Your task to perform on an android device: change notification settings in the gmail app Image 0: 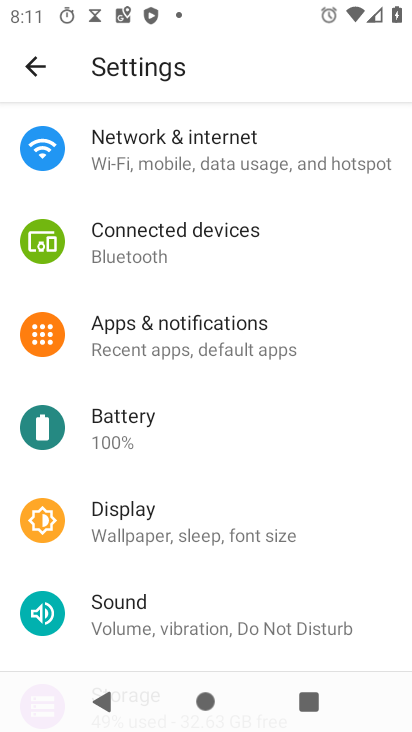
Step 0: press home button
Your task to perform on an android device: change notification settings in the gmail app Image 1: 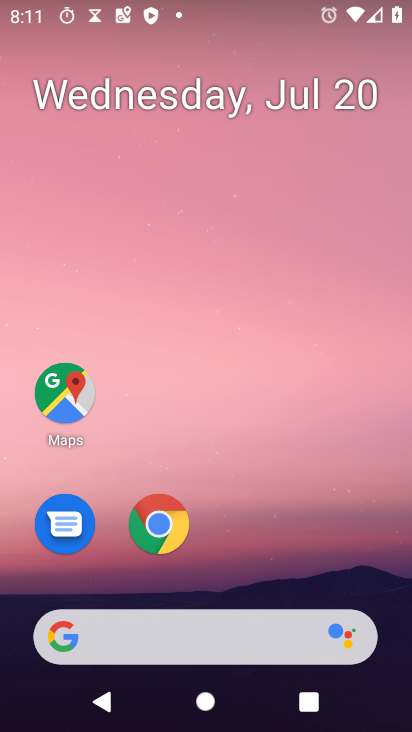
Step 1: drag from (213, 633) to (290, 132)
Your task to perform on an android device: change notification settings in the gmail app Image 2: 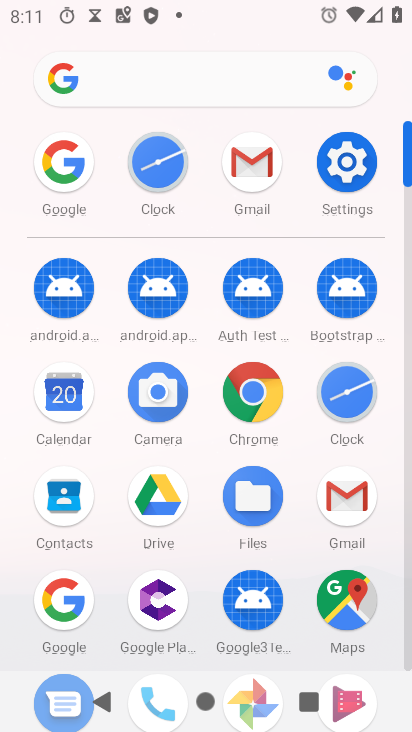
Step 2: click (249, 178)
Your task to perform on an android device: change notification settings in the gmail app Image 3: 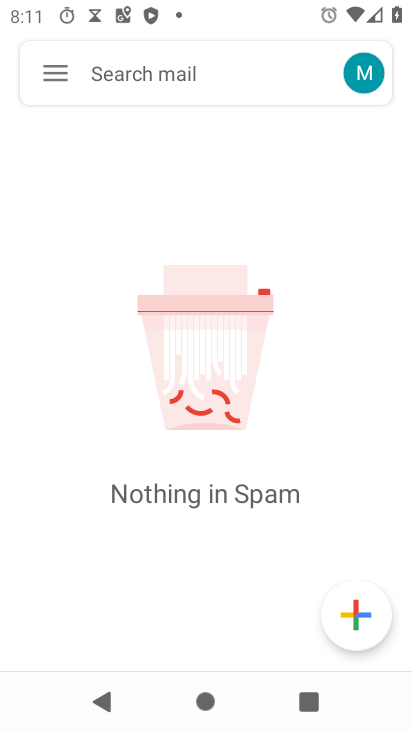
Step 3: click (47, 67)
Your task to perform on an android device: change notification settings in the gmail app Image 4: 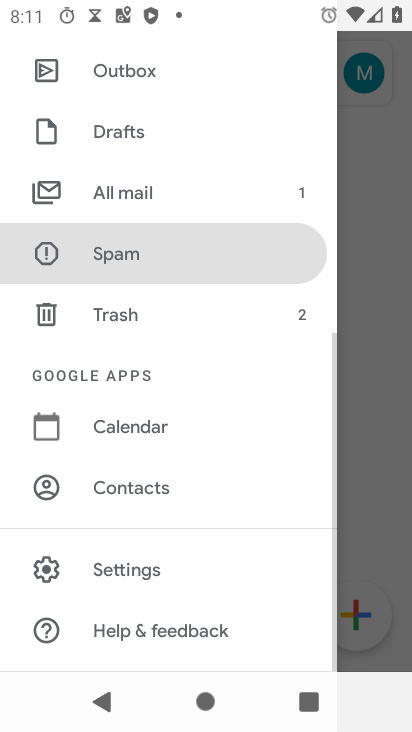
Step 4: click (139, 568)
Your task to perform on an android device: change notification settings in the gmail app Image 5: 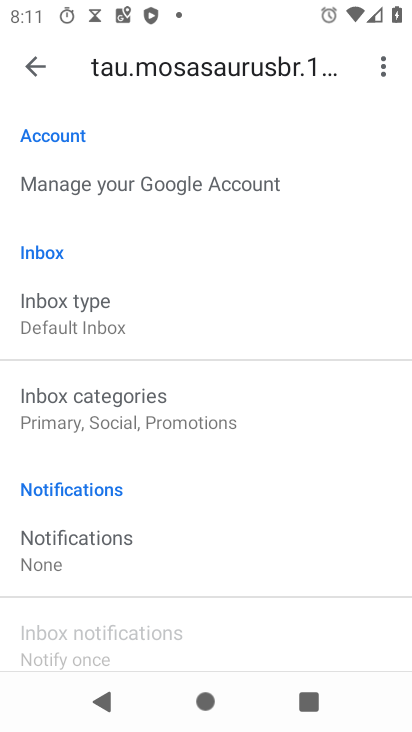
Step 5: click (59, 537)
Your task to perform on an android device: change notification settings in the gmail app Image 6: 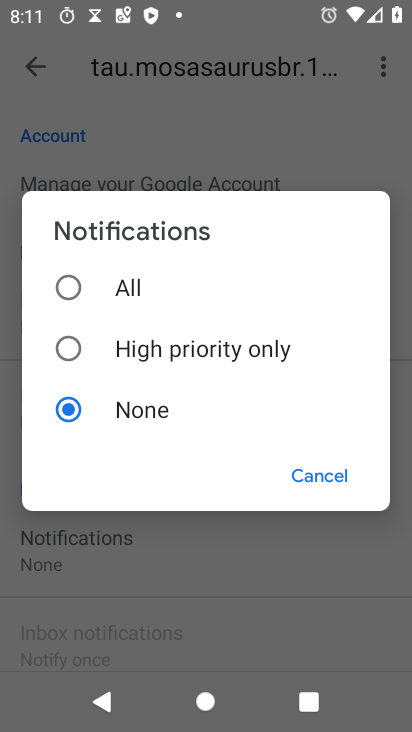
Step 6: click (77, 274)
Your task to perform on an android device: change notification settings in the gmail app Image 7: 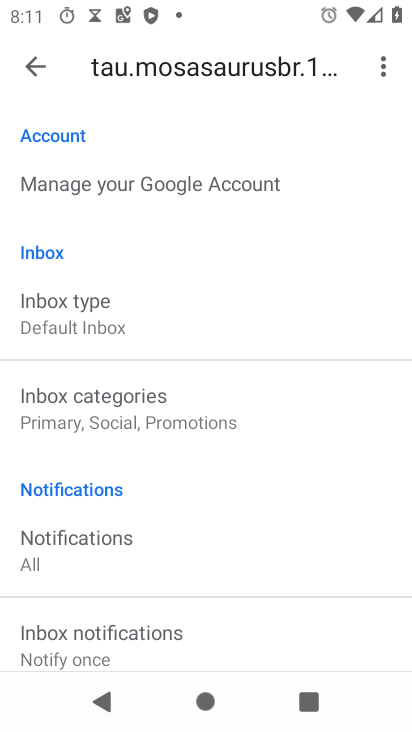
Step 7: task complete